Your task to perform on an android device: Do I have any events this weekend? Image 0: 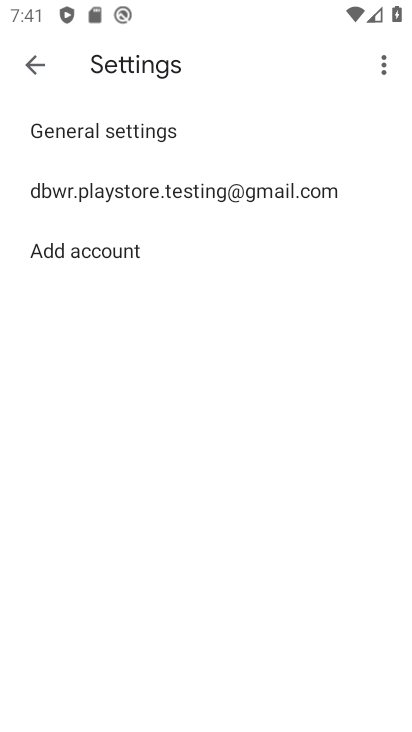
Step 0: click (235, 651)
Your task to perform on an android device: Do I have any events this weekend? Image 1: 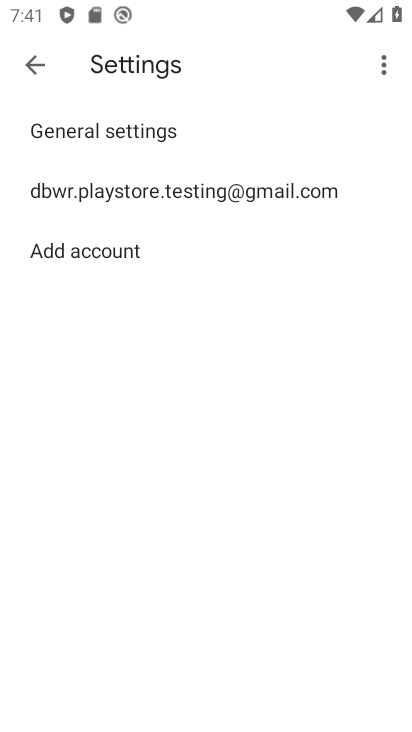
Step 1: press home button
Your task to perform on an android device: Do I have any events this weekend? Image 2: 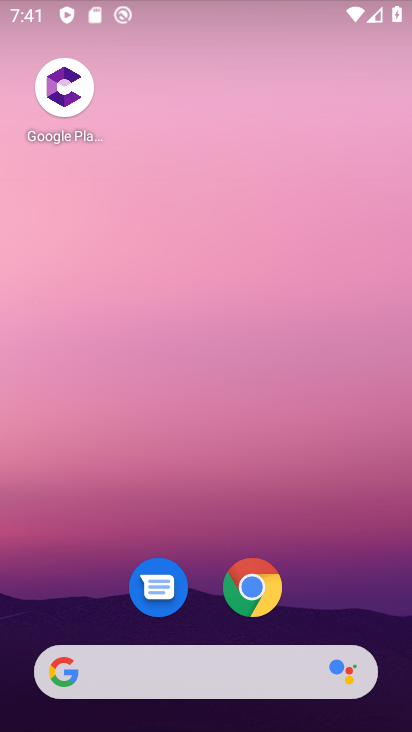
Step 2: click (152, 246)
Your task to perform on an android device: Do I have any events this weekend? Image 3: 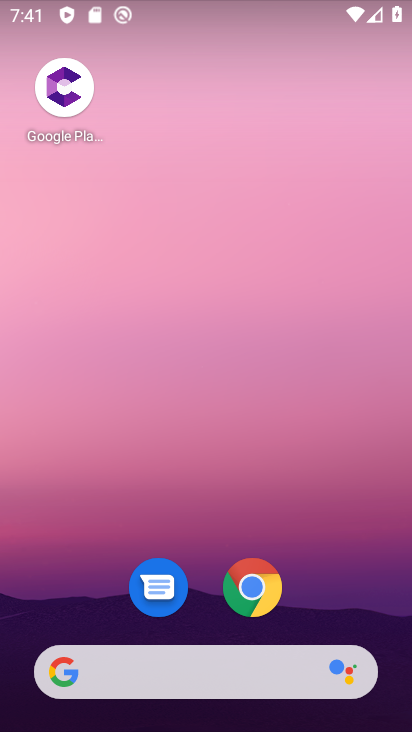
Step 3: drag from (235, 654) to (207, 191)
Your task to perform on an android device: Do I have any events this weekend? Image 4: 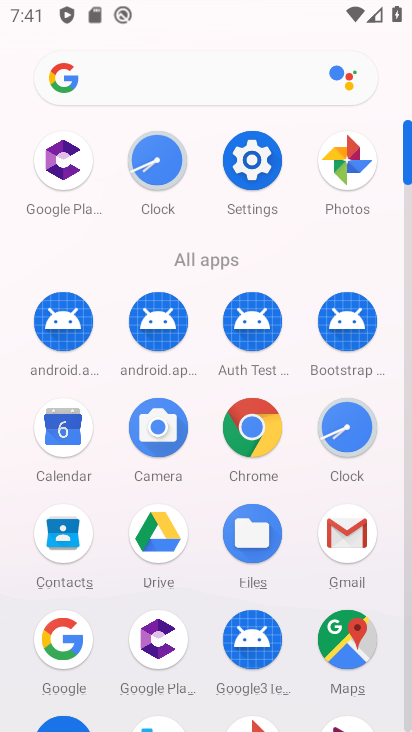
Step 4: click (50, 436)
Your task to perform on an android device: Do I have any events this weekend? Image 5: 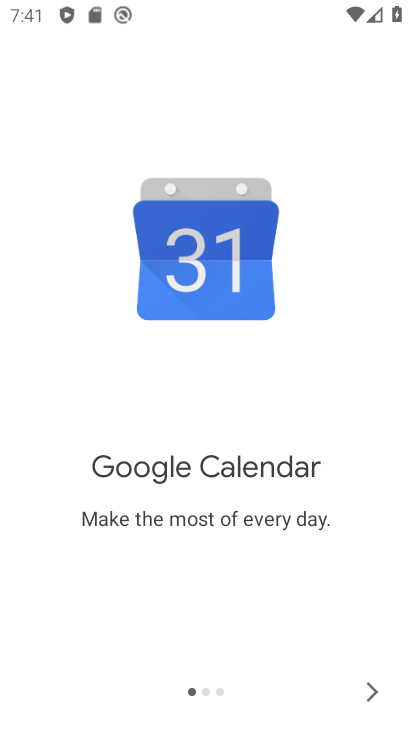
Step 5: click (370, 686)
Your task to perform on an android device: Do I have any events this weekend? Image 6: 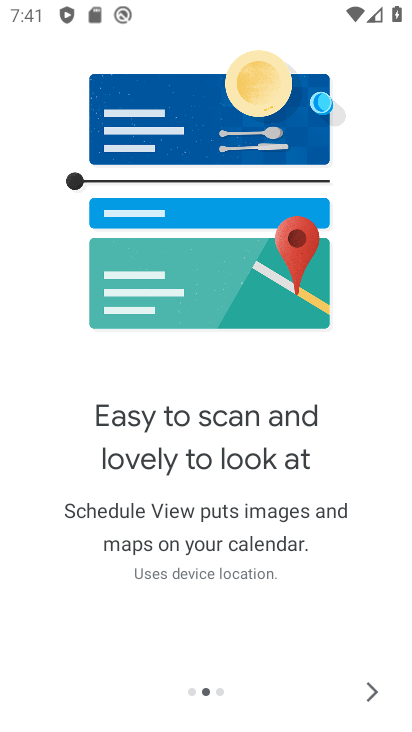
Step 6: click (370, 686)
Your task to perform on an android device: Do I have any events this weekend? Image 7: 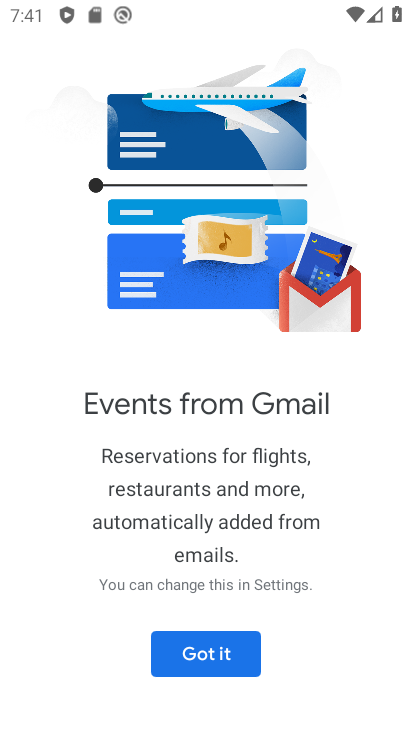
Step 7: click (220, 654)
Your task to perform on an android device: Do I have any events this weekend? Image 8: 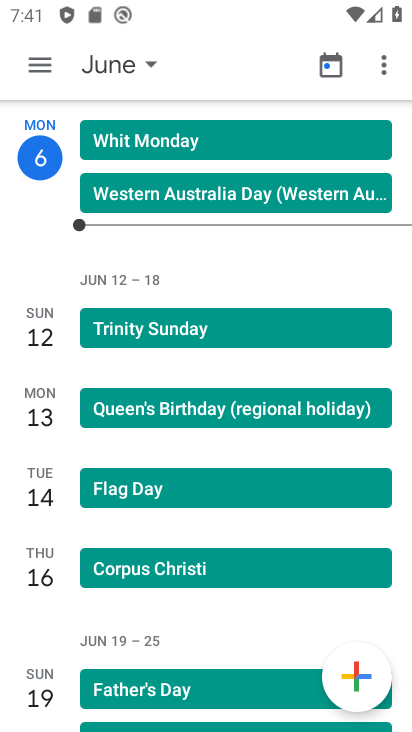
Step 8: click (102, 65)
Your task to perform on an android device: Do I have any events this weekend? Image 9: 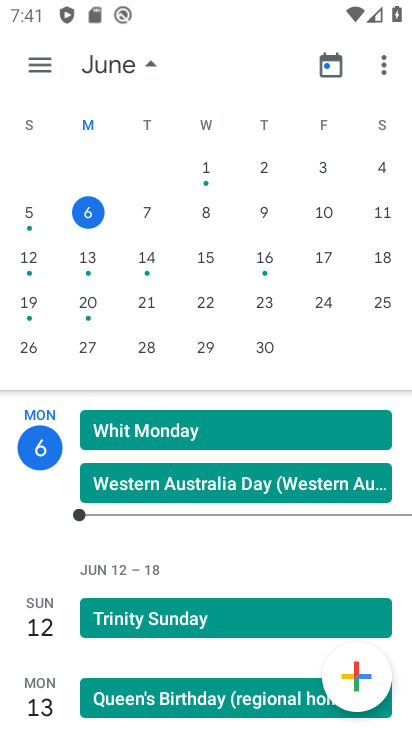
Step 9: click (383, 211)
Your task to perform on an android device: Do I have any events this weekend? Image 10: 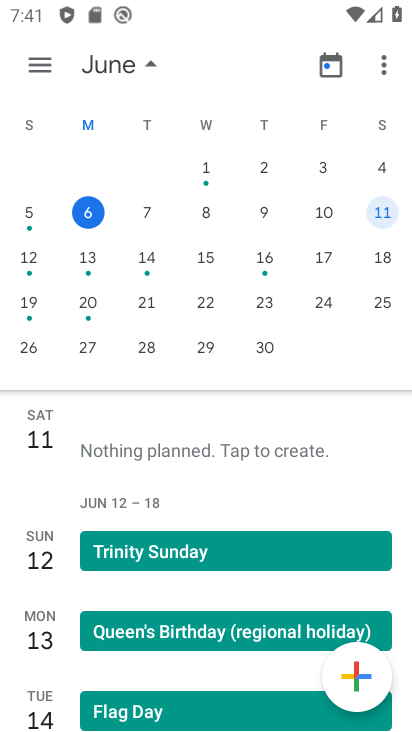
Step 10: task complete